Your task to perform on an android device: toggle priority inbox in the gmail app Image 0: 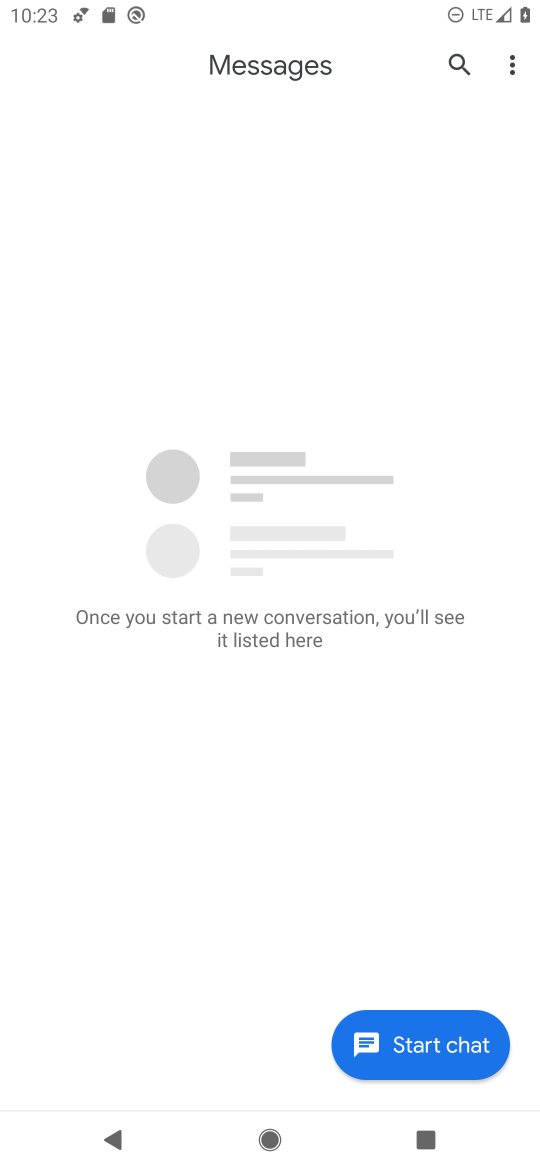
Step 0: press home button
Your task to perform on an android device: toggle priority inbox in the gmail app Image 1: 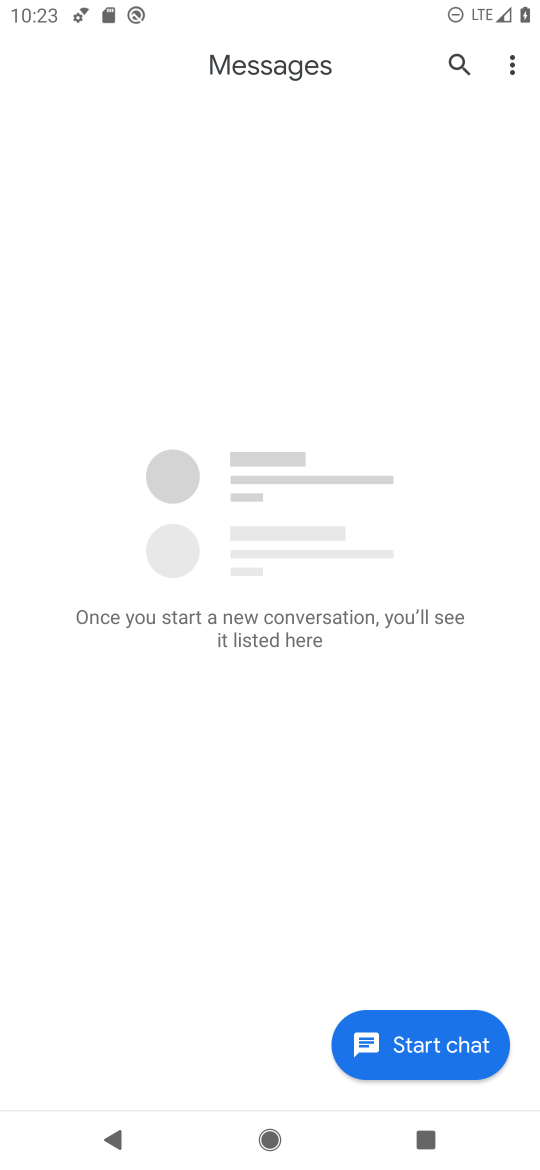
Step 1: press home button
Your task to perform on an android device: toggle priority inbox in the gmail app Image 2: 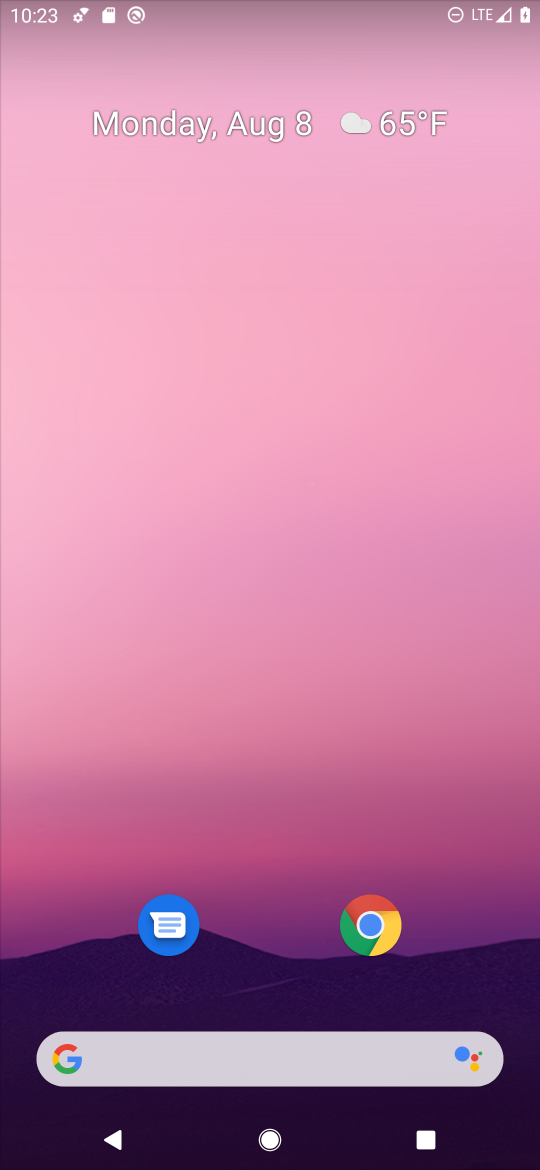
Step 2: drag from (455, 843) to (434, 93)
Your task to perform on an android device: toggle priority inbox in the gmail app Image 3: 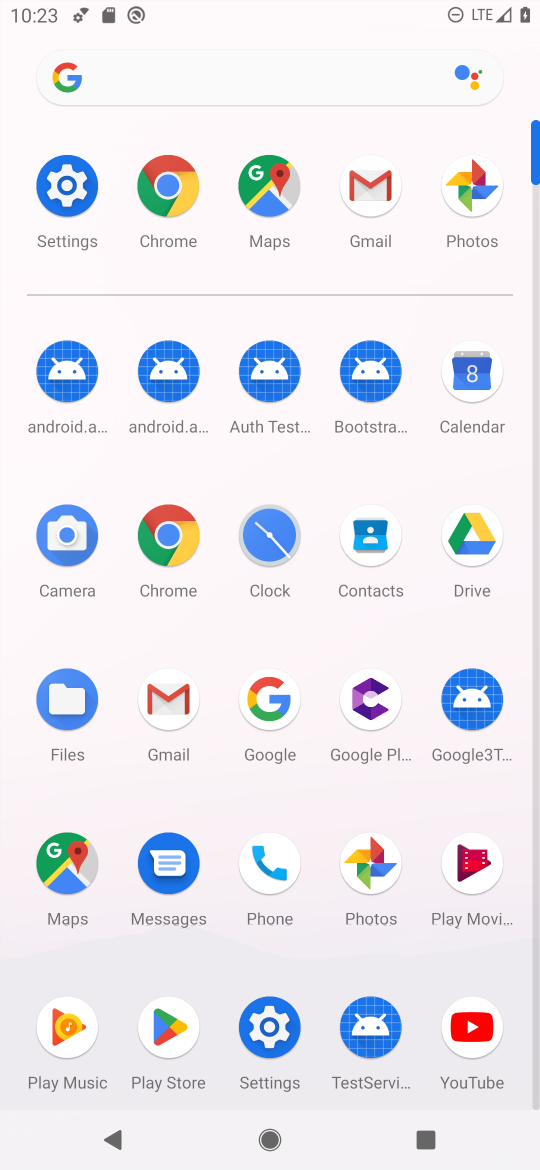
Step 3: click (172, 693)
Your task to perform on an android device: toggle priority inbox in the gmail app Image 4: 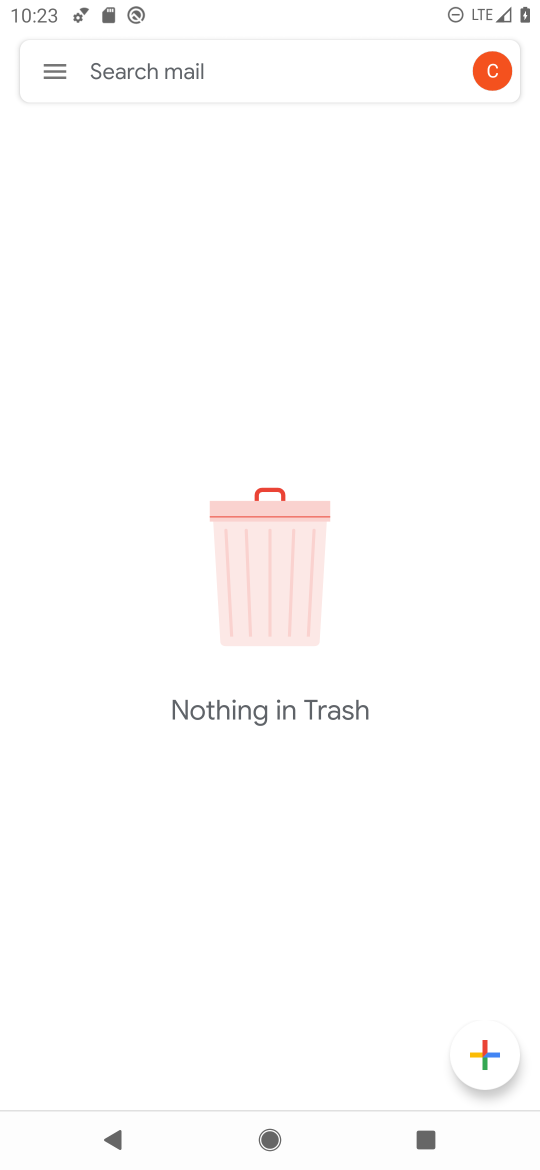
Step 4: click (47, 61)
Your task to perform on an android device: toggle priority inbox in the gmail app Image 5: 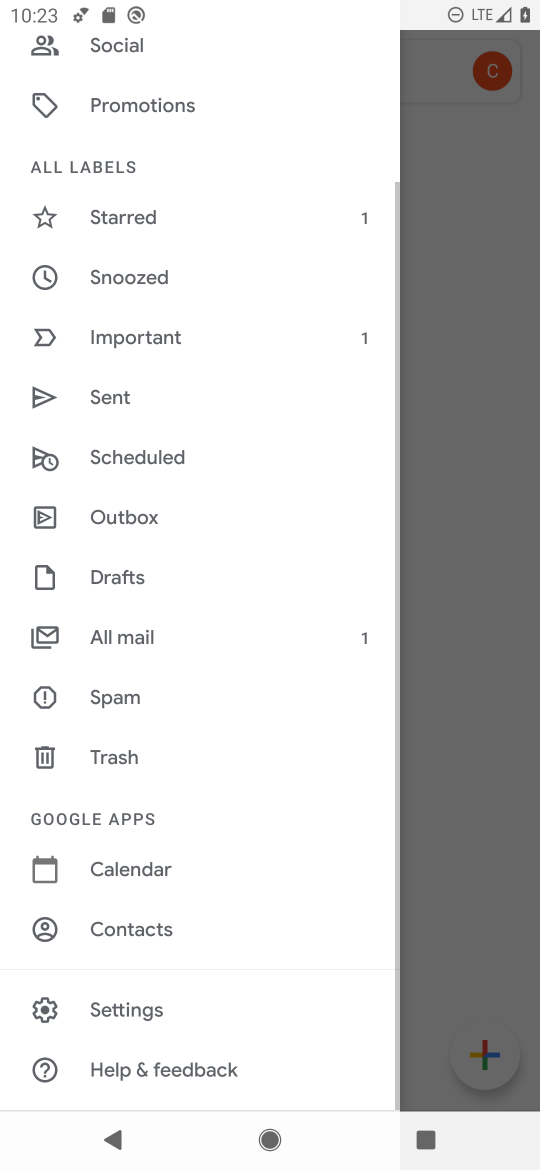
Step 5: click (141, 1024)
Your task to perform on an android device: toggle priority inbox in the gmail app Image 6: 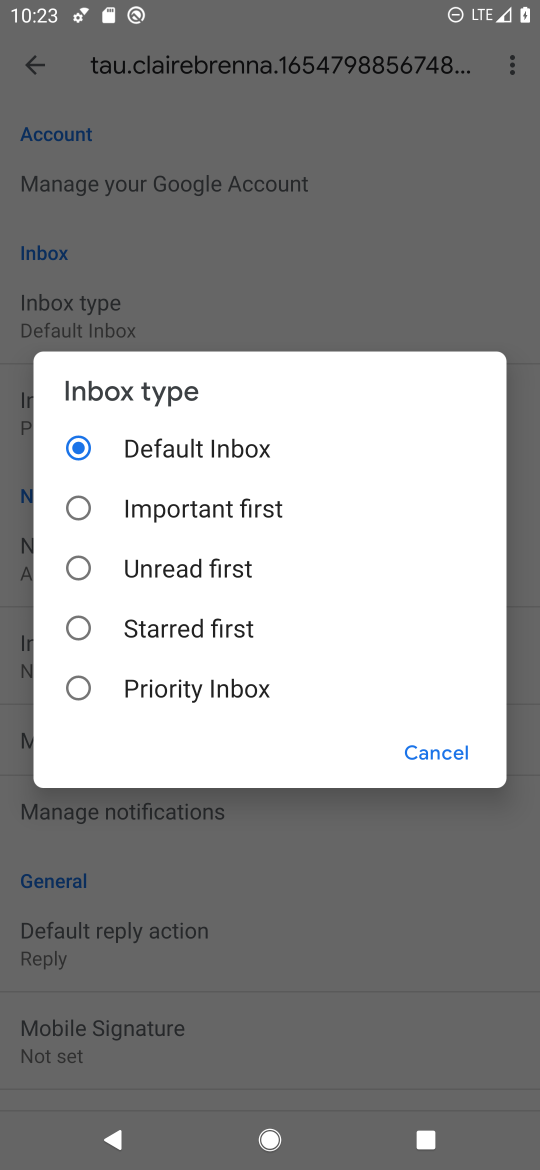
Step 6: click (161, 693)
Your task to perform on an android device: toggle priority inbox in the gmail app Image 7: 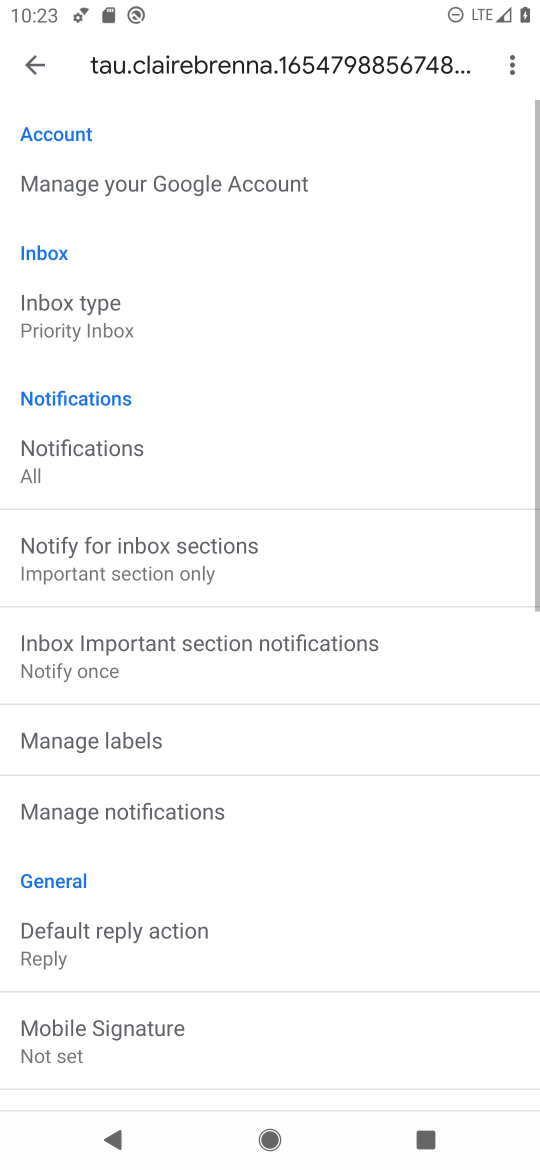
Step 7: task complete